Your task to perform on an android device: Check the weather Image 0: 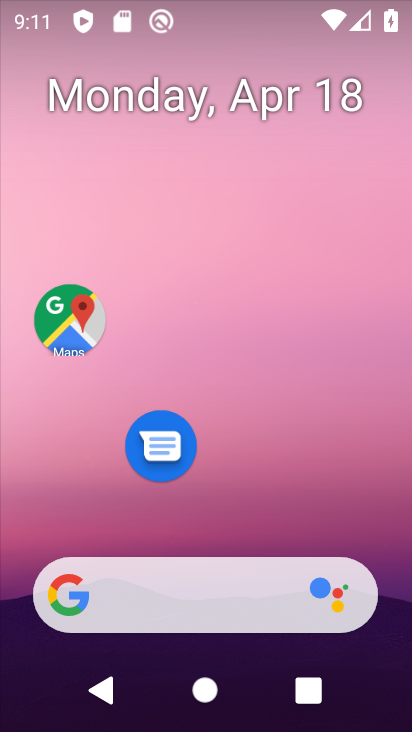
Step 0: drag from (66, 212) to (411, 259)
Your task to perform on an android device: Check the weather Image 1: 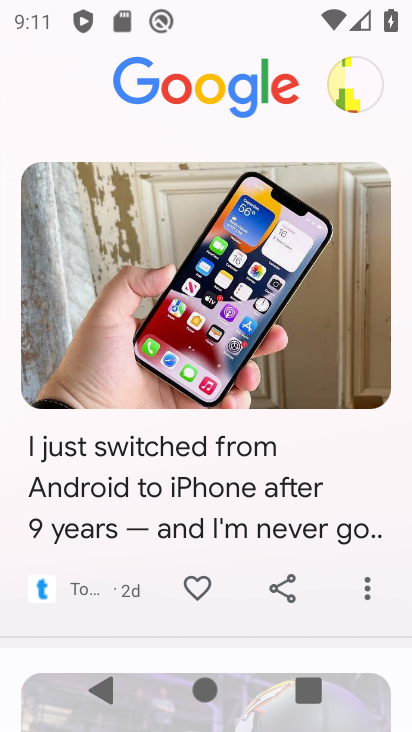
Step 1: task complete